Your task to perform on an android device: Open Youtube and go to the subscriptions tab Image 0: 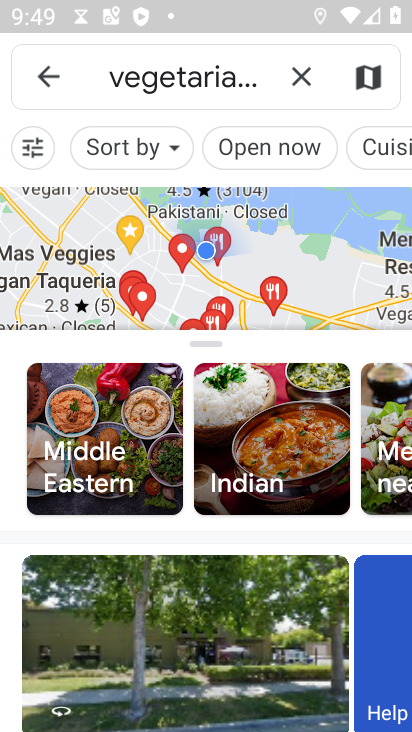
Step 0: press home button
Your task to perform on an android device: Open Youtube and go to the subscriptions tab Image 1: 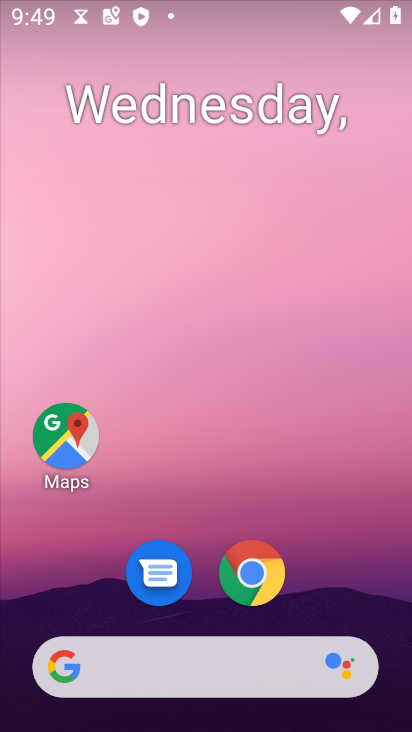
Step 1: drag from (311, 589) to (305, 216)
Your task to perform on an android device: Open Youtube and go to the subscriptions tab Image 2: 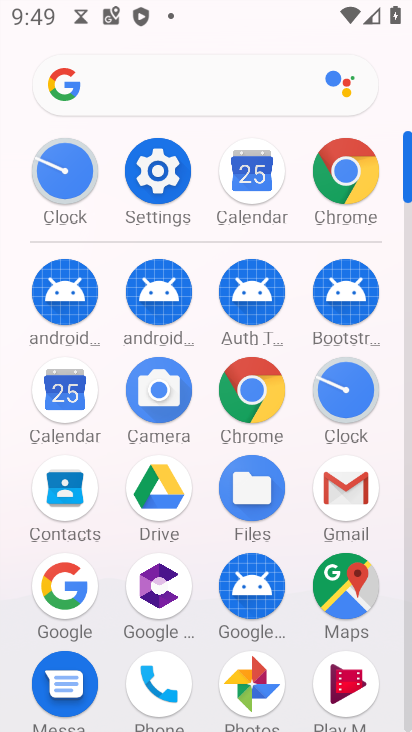
Step 2: drag from (299, 616) to (292, 235)
Your task to perform on an android device: Open Youtube and go to the subscriptions tab Image 3: 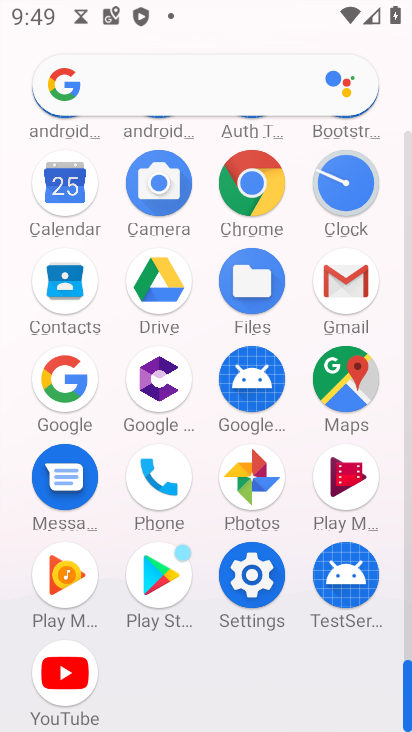
Step 3: click (66, 682)
Your task to perform on an android device: Open Youtube and go to the subscriptions tab Image 4: 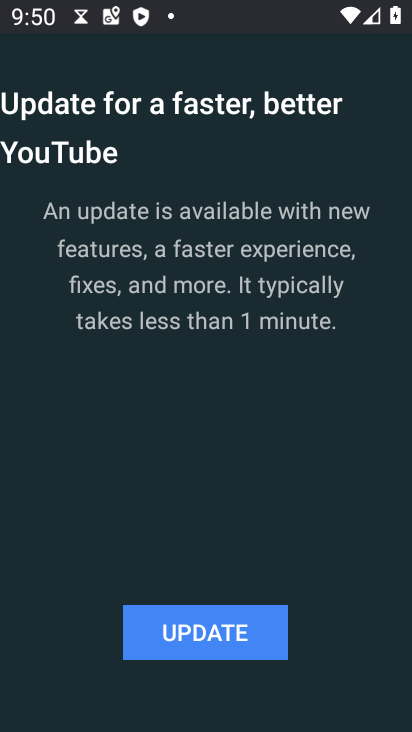
Step 4: task complete